Your task to perform on an android device: What's on my calendar today? Image 0: 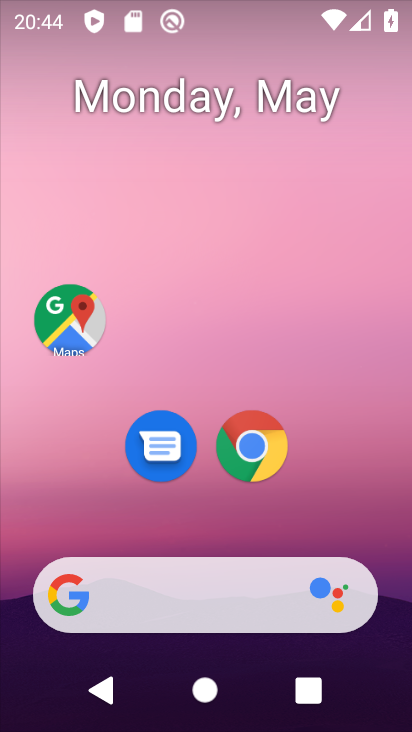
Step 0: drag from (336, 477) to (320, 111)
Your task to perform on an android device: What's on my calendar today? Image 1: 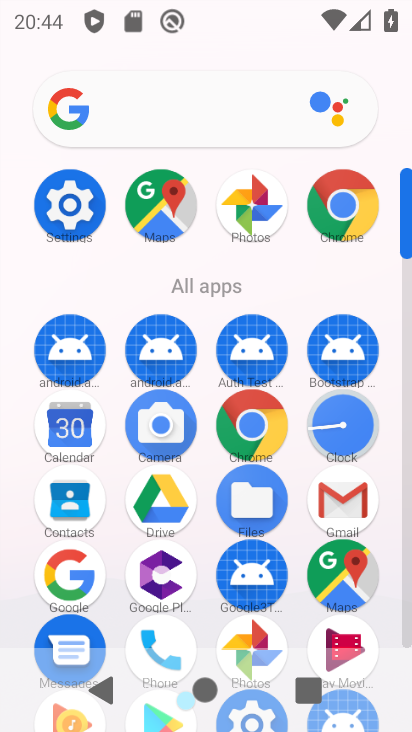
Step 1: click (52, 442)
Your task to perform on an android device: What's on my calendar today? Image 2: 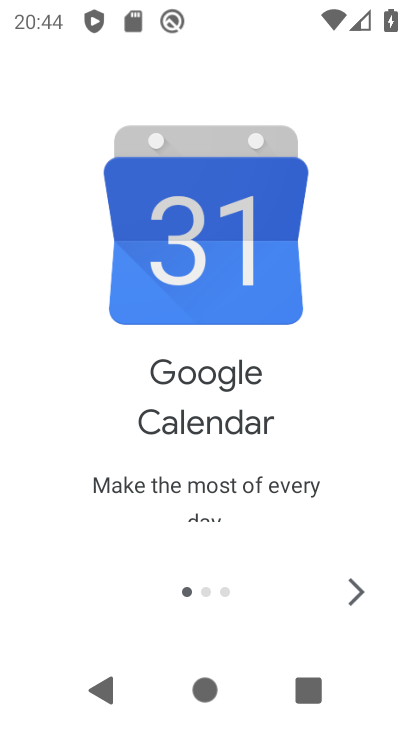
Step 2: click (364, 599)
Your task to perform on an android device: What's on my calendar today? Image 3: 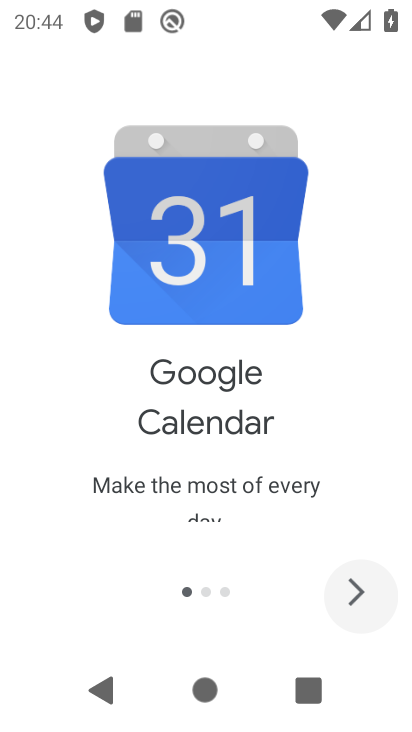
Step 3: click (364, 599)
Your task to perform on an android device: What's on my calendar today? Image 4: 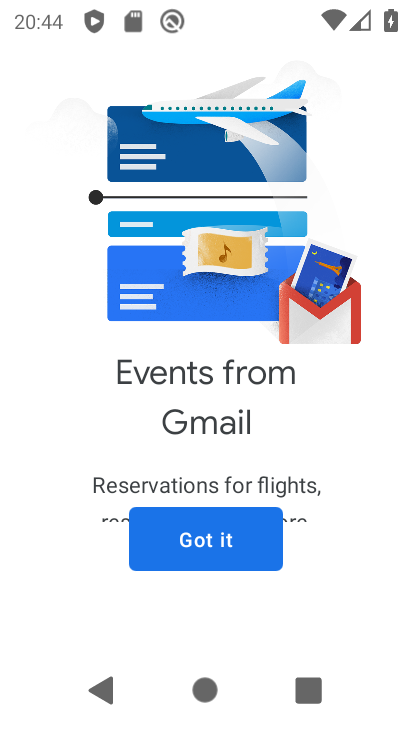
Step 4: click (210, 549)
Your task to perform on an android device: What's on my calendar today? Image 5: 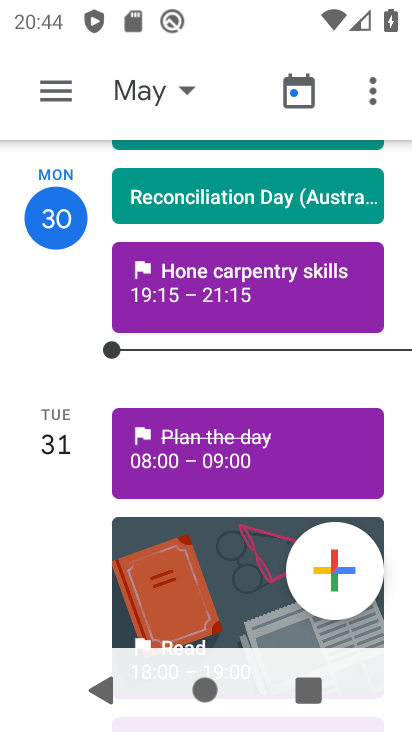
Step 5: task complete